Your task to perform on an android device: Check the news Image 0: 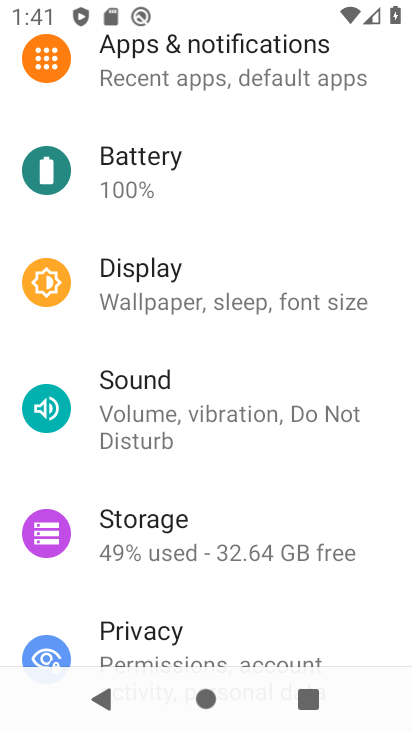
Step 0: press home button
Your task to perform on an android device: Check the news Image 1: 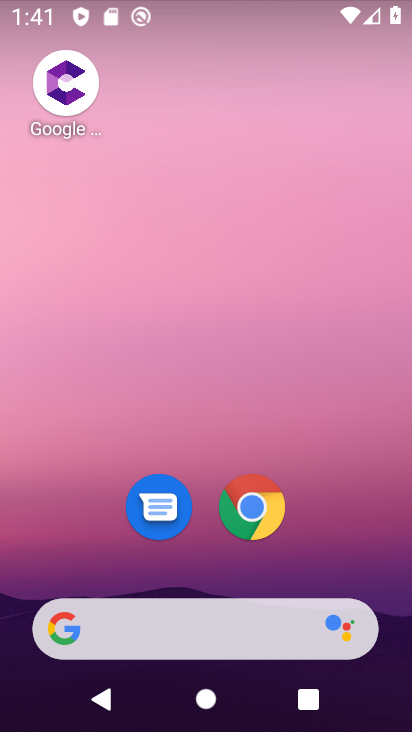
Step 1: task complete